Your task to perform on an android device: check the backup settings in the google photos Image 0: 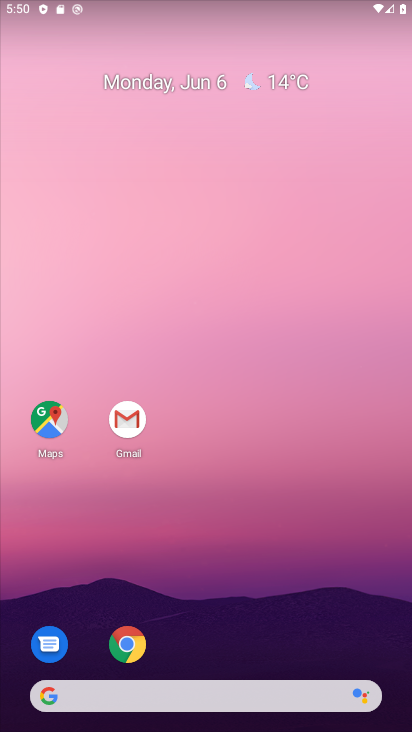
Step 0: drag from (179, 505) to (116, 74)
Your task to perform on an android device: check the backup settings in the google photos Image 1: 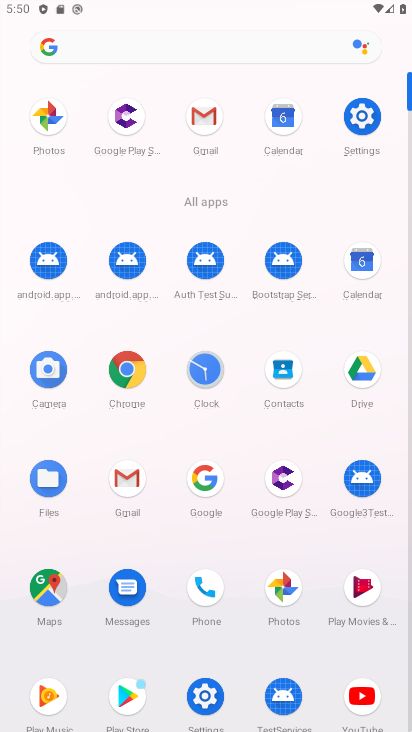
Step 1: click (274, 575)
Your task to perform on an android device: check the backup settings in the google photos Image 2: 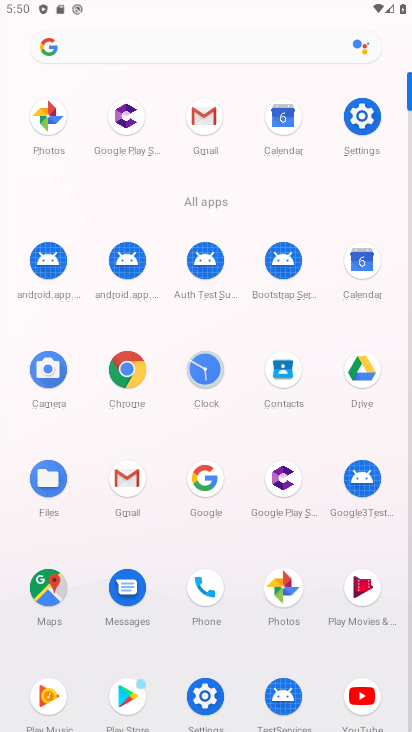
Step 2: click (276, 577)
Your task to perform on an android device: check the backup settings in the google photos Image 3: 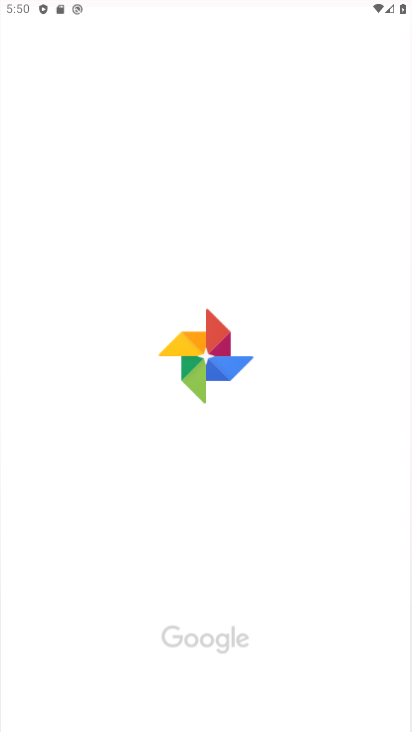
Step 3: click (277, 578)
Your task to perform on an android device: check the backup settings in the google photos Image 4: 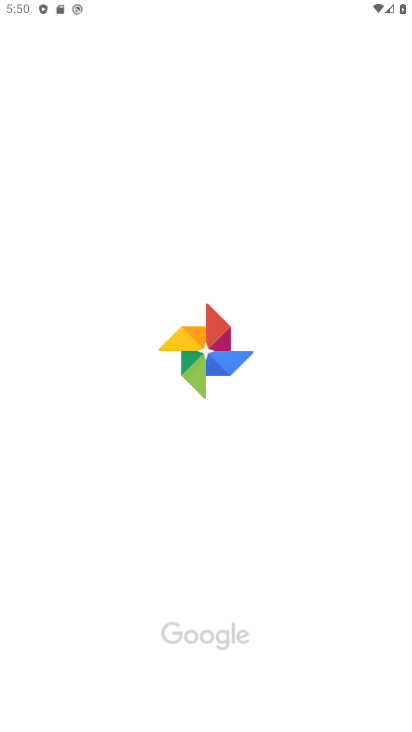
Step 4: click (282, 581)
Your task to perform on an android device: check the backup settings in the google photos Image 5: 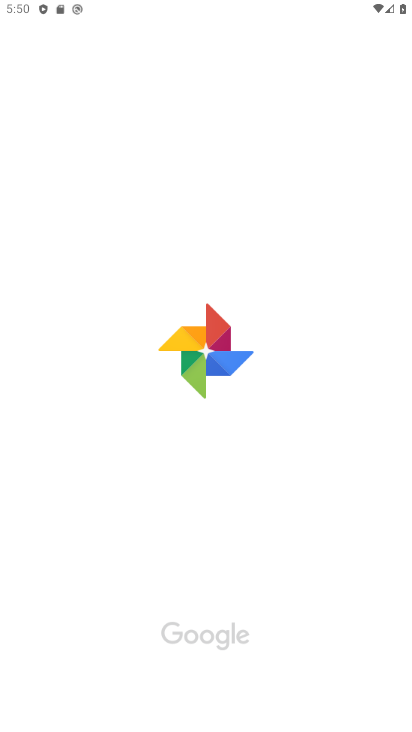
Step 5: click (282, 582)
Your task to perform on an android device: check the backup settings in the google photos Image 6: 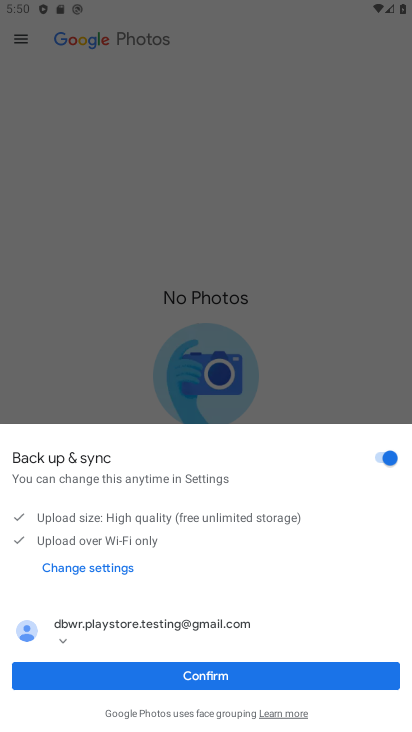
Step 6: click (204, 673)
Your task to perform on an android device: check the backup settings in the google photos Image 7: 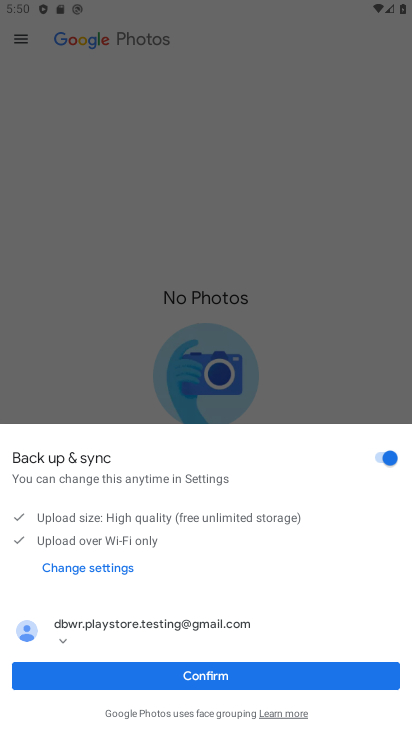
Step 7: click (204, 673)
Your task to perform on an android device: check the backup settings in the google photos Image 8: 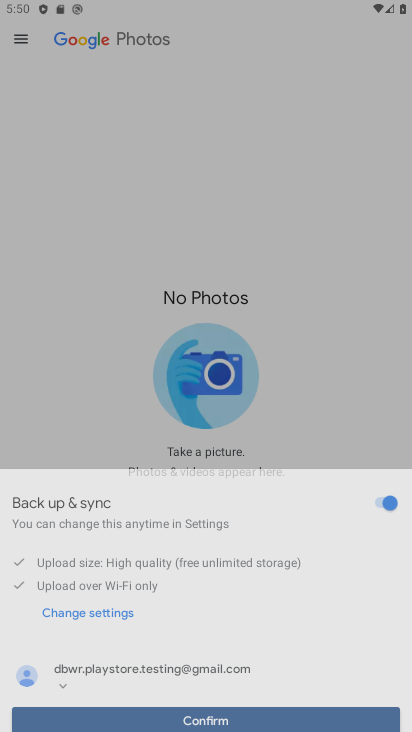
Step 8: click (204, 673)
Your task to perform on an android device: check the backup settings in the google photos Image 9: 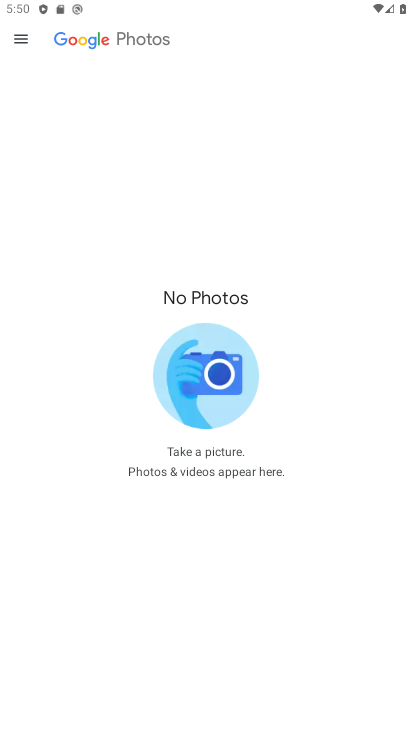
Step 9: click (204, 673)
Your task to perform on an android device: check the backup settings in the google photos Image 10: 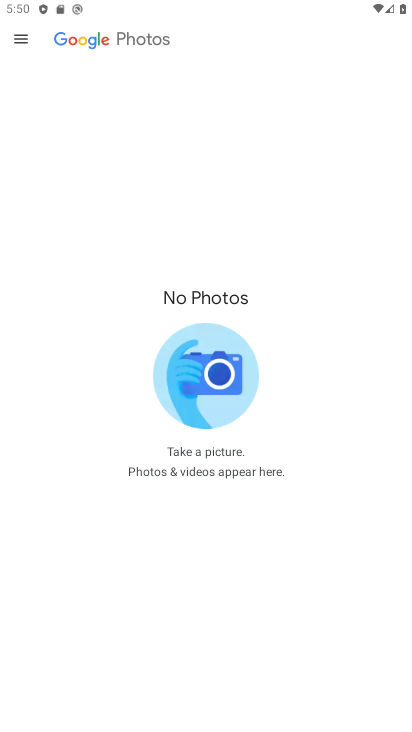
Step 10: click (205, 675)
Your task to perform on an android device: check the backup settings in the google photos Image 11: 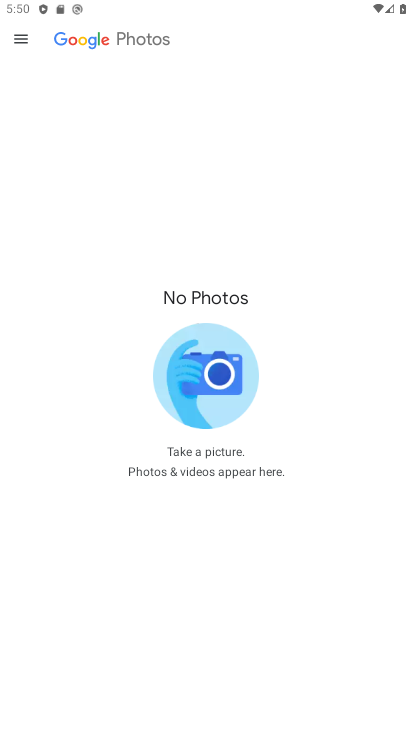
Step 11: click (221, 376)
Your task to perform on an android device: check the backup settings in the google photos Image 12: 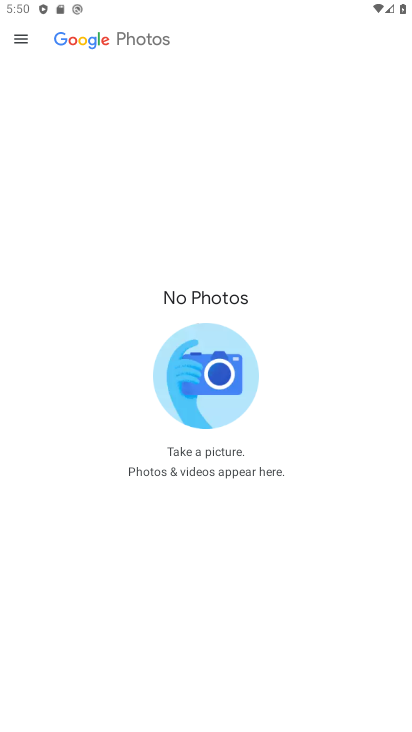
Step 12: click (221, 376)
Your task to perform on an android device: check the backup settings in the google photos Image 13: 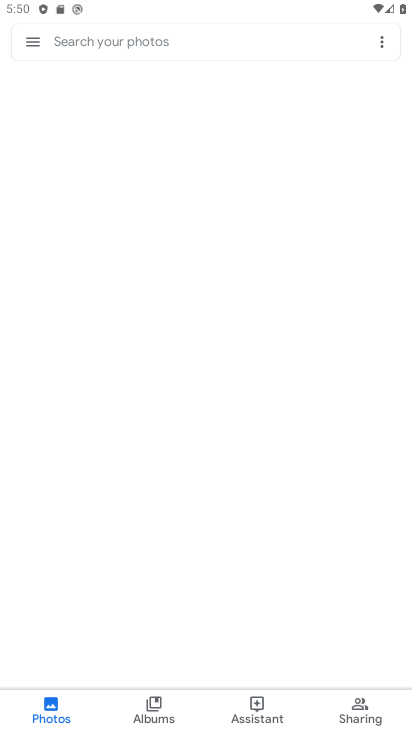
Step 13: task complete